Your task to perform on an android device: set the stopwatch Image 0: 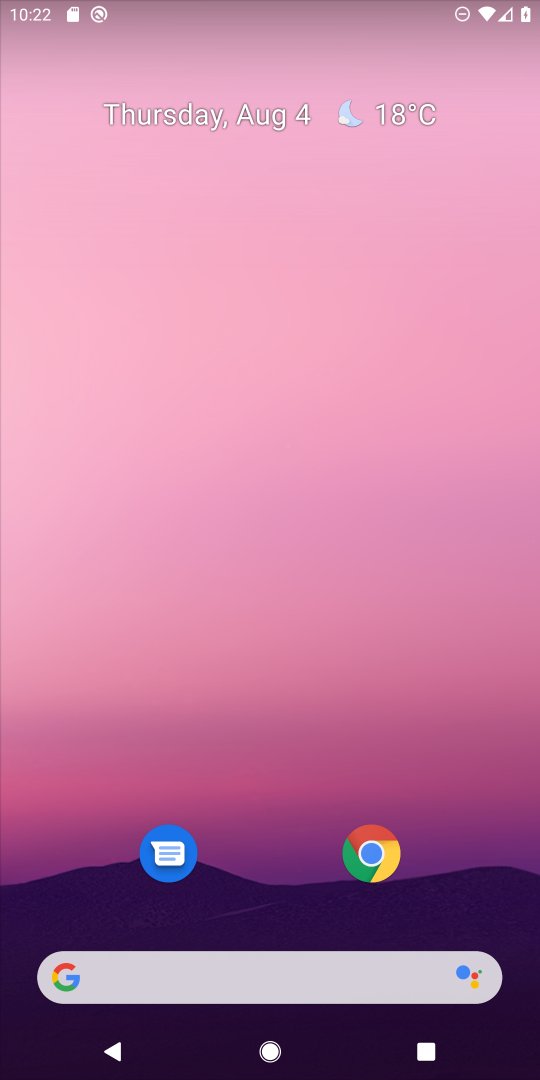
Step 0: drag from (314, 910) to (329, 15)
Your task to perform on an android device: set the stopwatch Image 1: 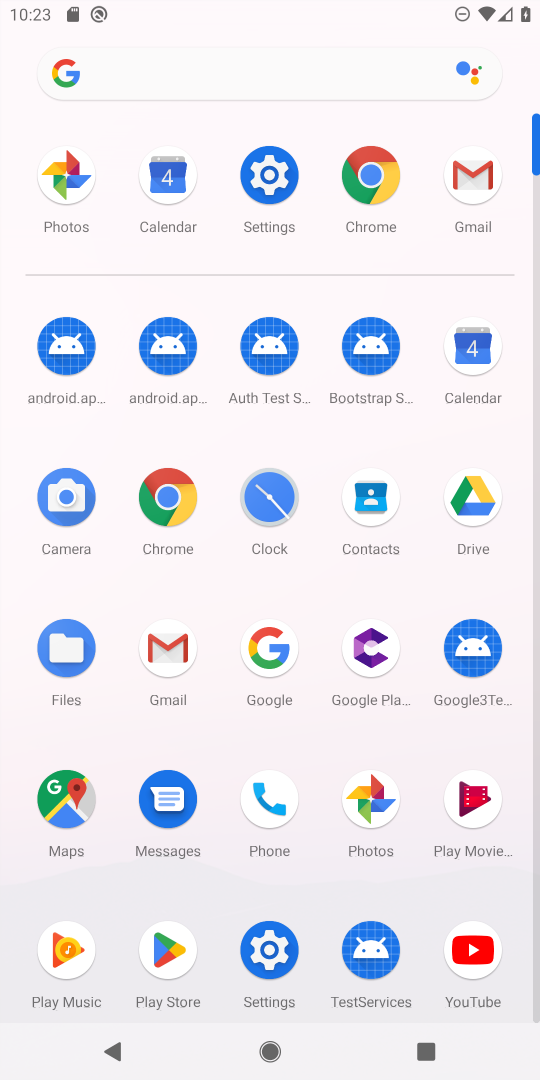
Step 1: click (278, 493)
Your task to perform on an android device: set the stopwatch Image 2: 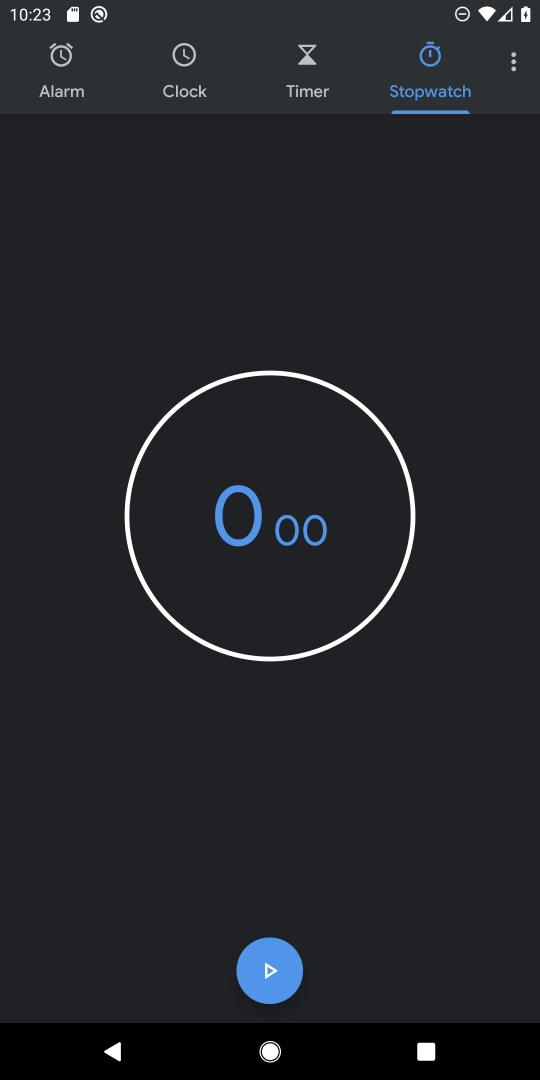
Step 2: click (281, 968)
Your task to perform on an android device: set the stopwatch Image 3: 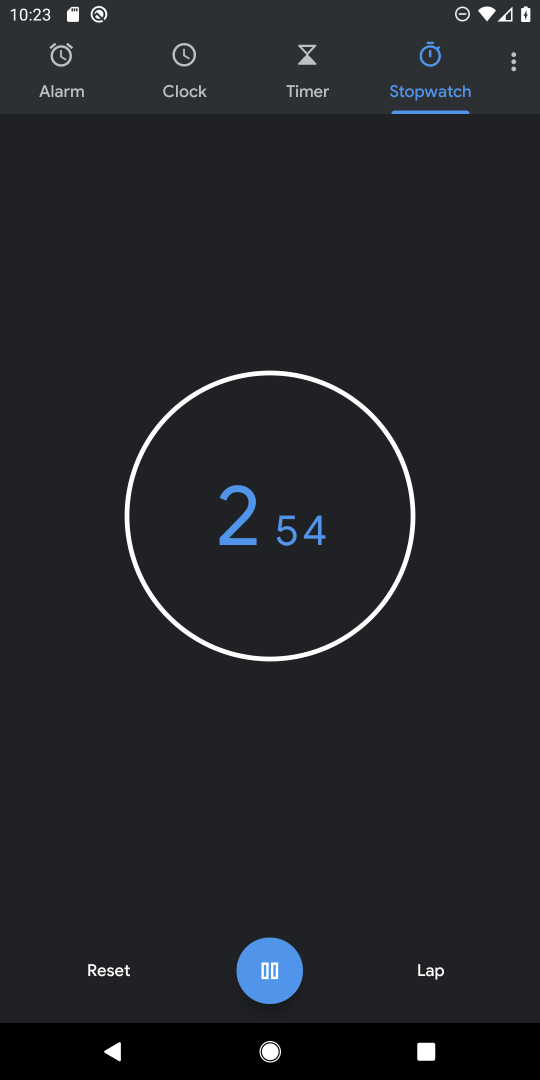
Step 3: task complete